Your task to perform on an android device: Open eBay Image 0: 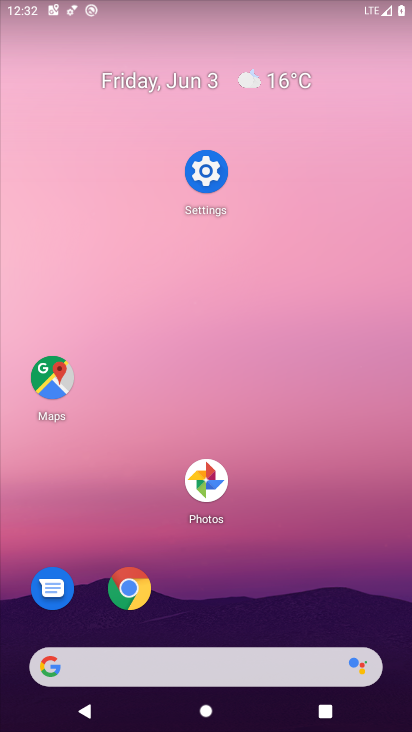
Step 0: click (409, 12)
Your task to perform on an android device: Open eBay Image 1: 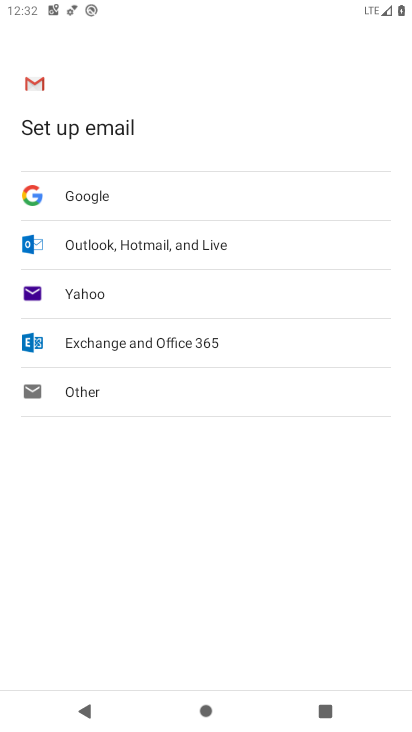
Step 1: click (282, 466)
Your task to perform on an android device: Open eBay Image 2: 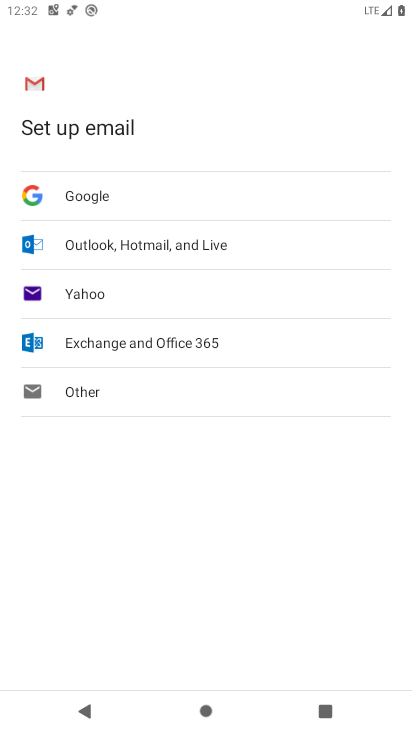
Step 2: press home button
Your task to perform on an android device: Open eBay Image 3: 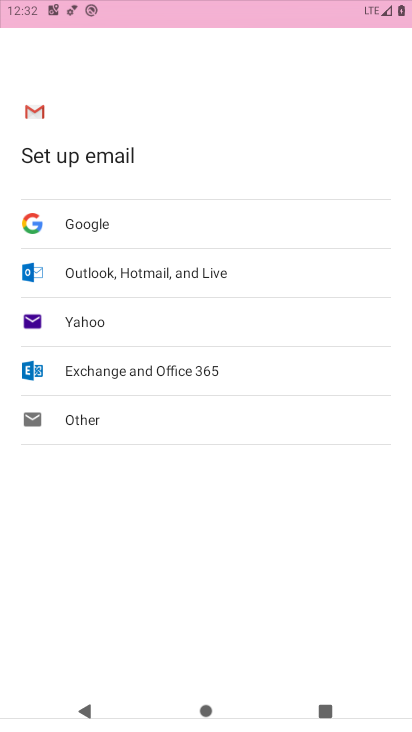
Step 3: drag from (187, 589) to (409, 243)
Your task to perform on an android device: Open eBay Image 4: 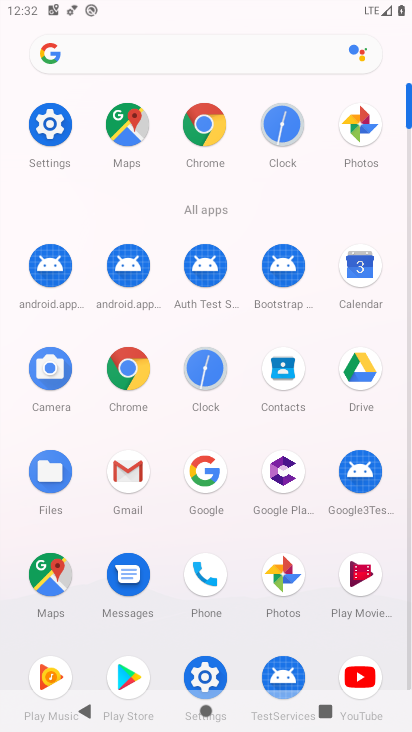
Step 4: click (122, 57)
Your task to perform on an android device: Open eBay Image 5: 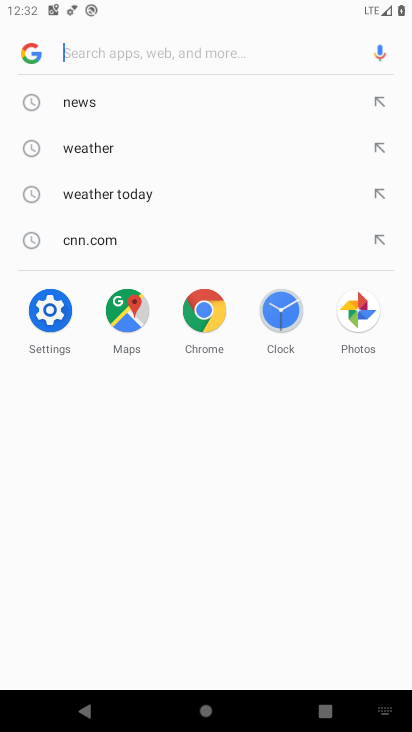
Step 5: type "eBay"
Your task to perform on an android device: Open eBay Image 6: 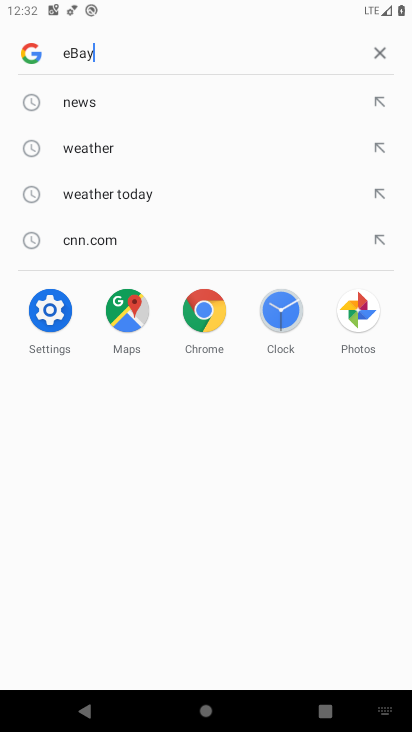
Step 6: type ""
Your task to perform on an android device: Open eBay Image 7: 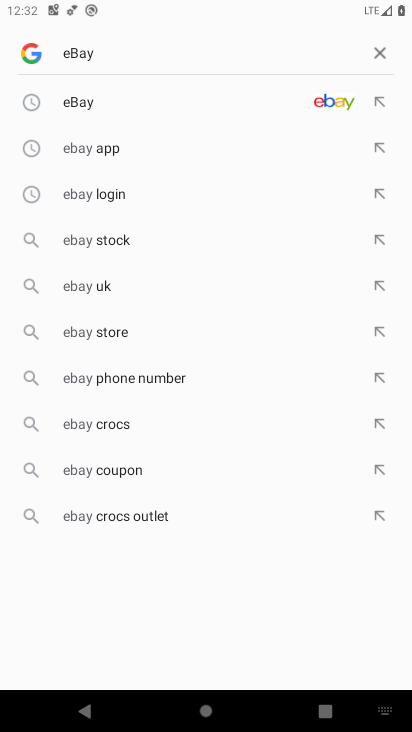
Step 7: click (135, 106)
Your task to perform on an android device: Open eBay Image 8: 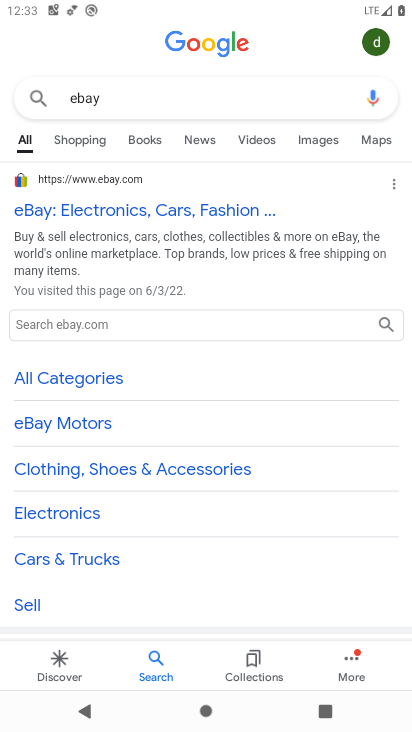
Step 8: click (100, 219)
Your task to perform on an android device: Open eBay Image 9: 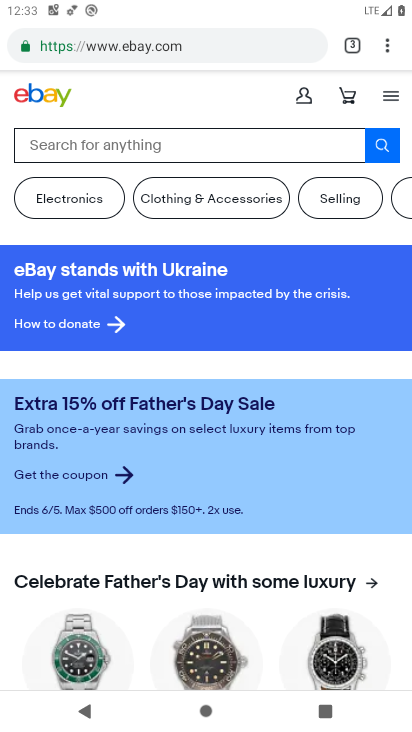
Step 9: task complete